Your task to perform on an android device: Go to Google Image 0: 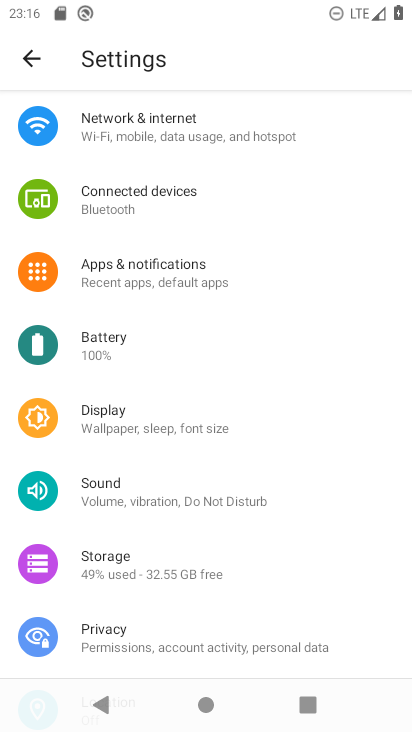
Step 0: press home button
Your task to perform on an android device: Go to Google Image 1: 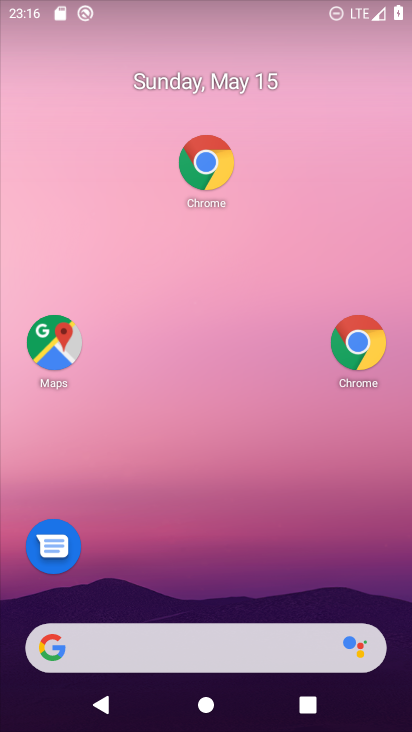
Step 1: drag from (165, 571) to (226, 222)
Your task to perform on an android device: Go to Google Image 2: 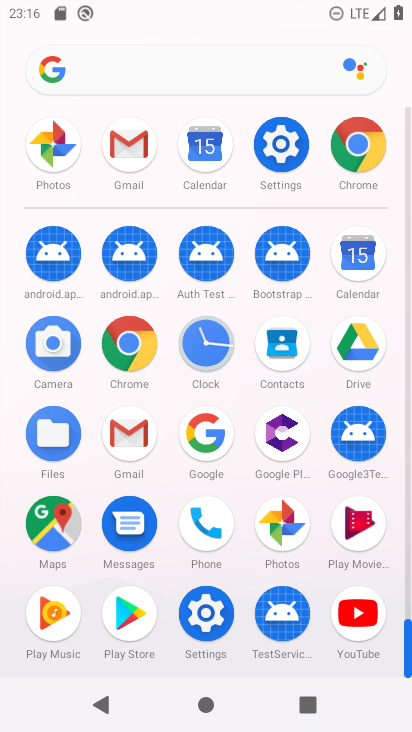
Step 2: click (194, 424)
Your task to perform on an android device: Go to Google Image 3: 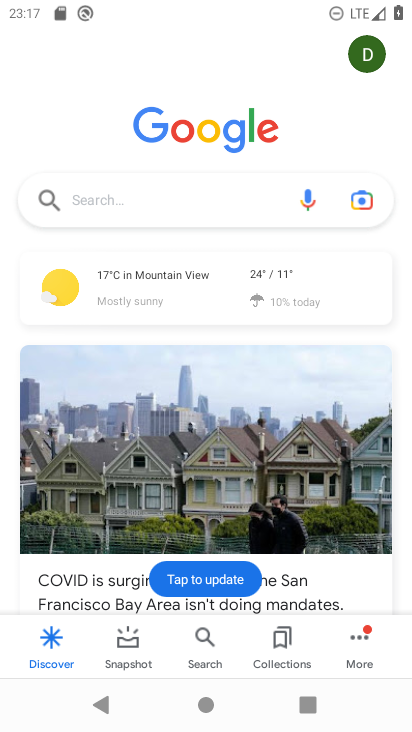
Step 3: task complete